Your task to perform on an android device: Go to Maps Image 0: 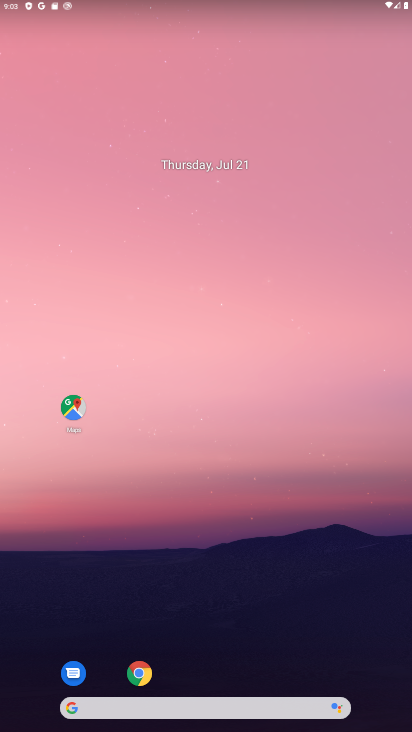
Step 0: click (73, 408)
Your task to perform on an android device: Go to Maps Image 1: 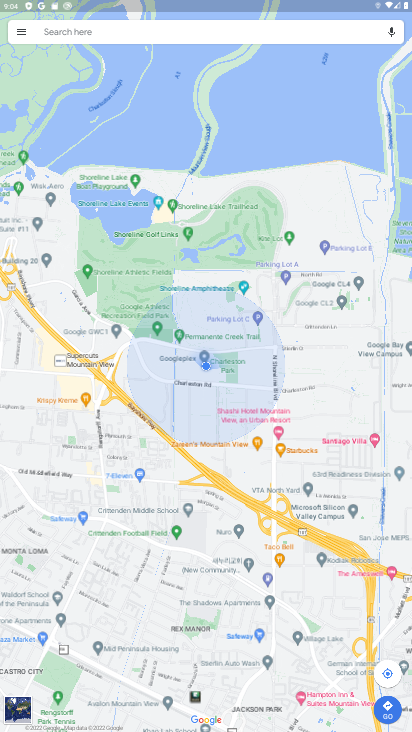
Step 1: task complete